Your task to perform on an android device: clear history in the chrome app Image 0: 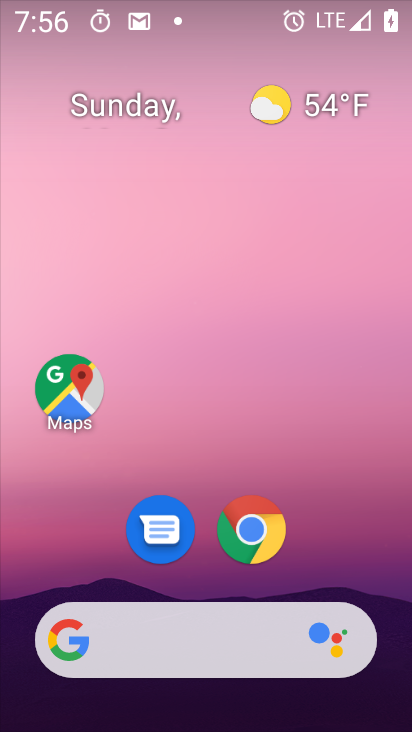
Step 0: click (251, 540)
Your task to perform on an android device: clear history in the chrome app Image 1: 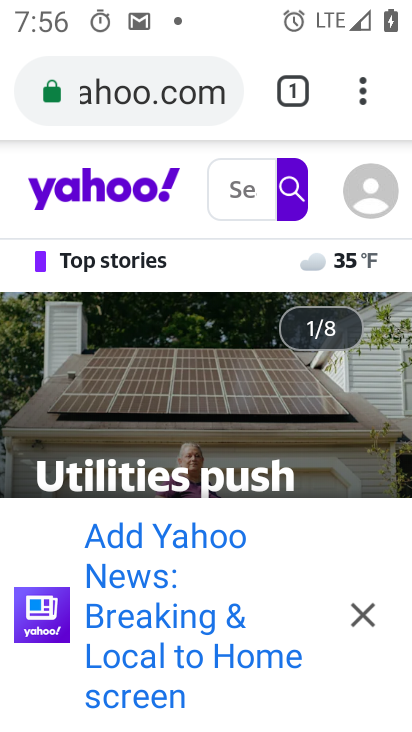
Step 1: click (357, 113)
Your task to perform on an android device: clear history in the chrome app Image 2: 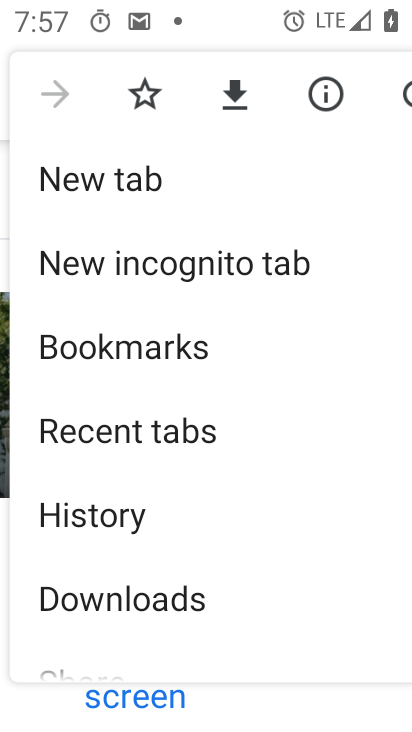
Step 2: click (135, 508)
Your task to perform on an android device: clear history in the chrome app Image 3: 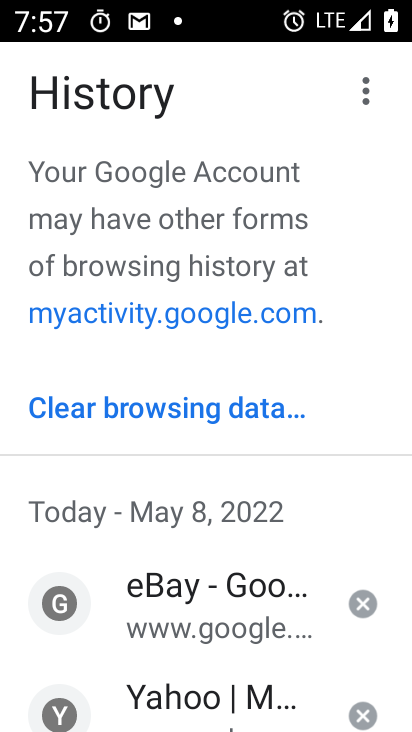
Step 3: click (142, 402)
Your task to perform on an android device: clear history in the chrome app Image 4: 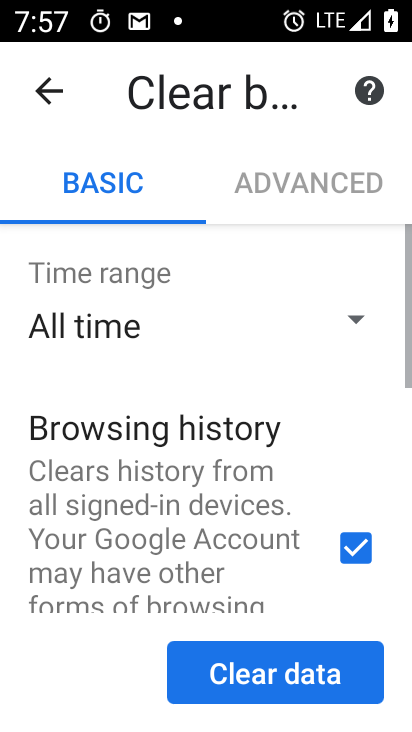
Step 4: drag from (206, 531) to (266, 160)
Your task to perform on an android device: clear history in the chrome app Image 5: 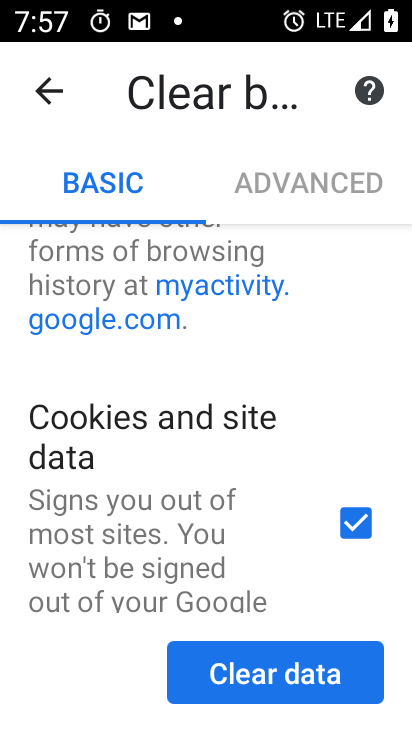
Step 5: drag from (273, 568) to (297, 298)
Your task to perform on an android device: clear history in the chrome app Image 6: 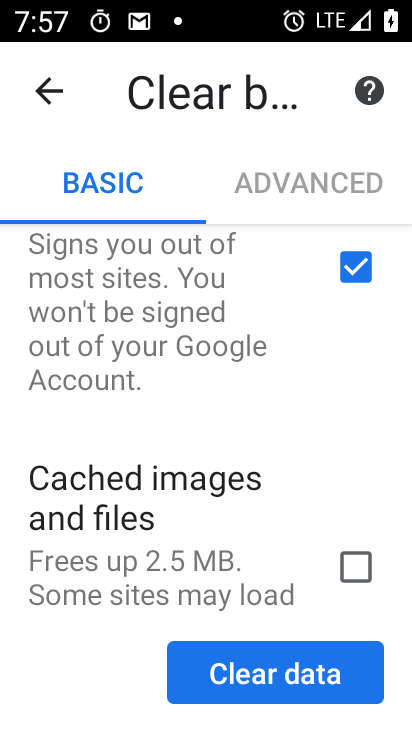
Step 6: click (261, 655)
Your task to perform on an android device: clear history in the chrome app Image 7: 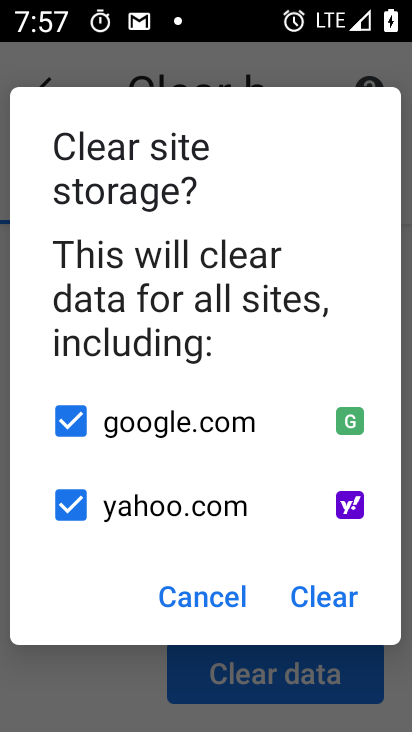
Step 7: click (340, 606)
Your task to perform on an android device: clear history in the chrome app Image 8: 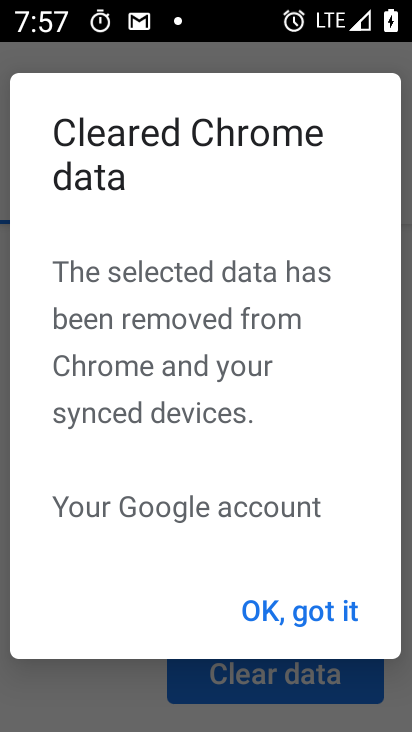
Step 8: click (340, 606)
Your task to perform on an android device: clear history in the chrome app Image 9: 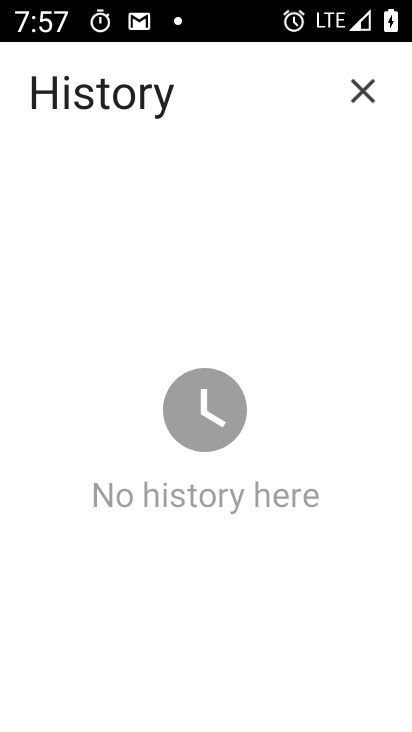
Step 9: task complete